Your task to perform on an android device: clear all cookies in the chrome app Image 0: 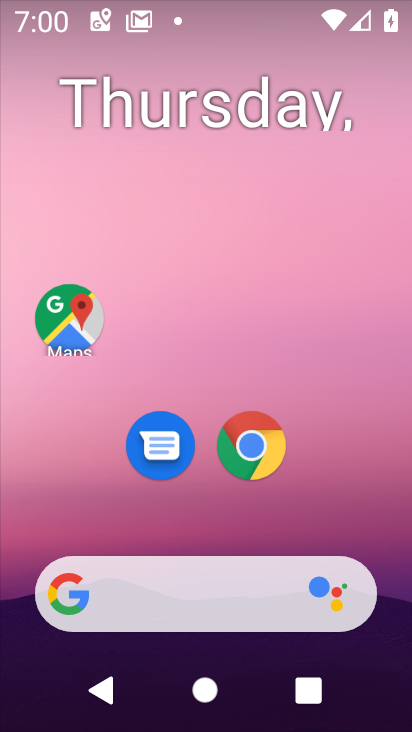
Step 0: drag from (385, 644) to (205, 103)
Your task to perform on an android device: clear all cookies in the chrome app Image 1: 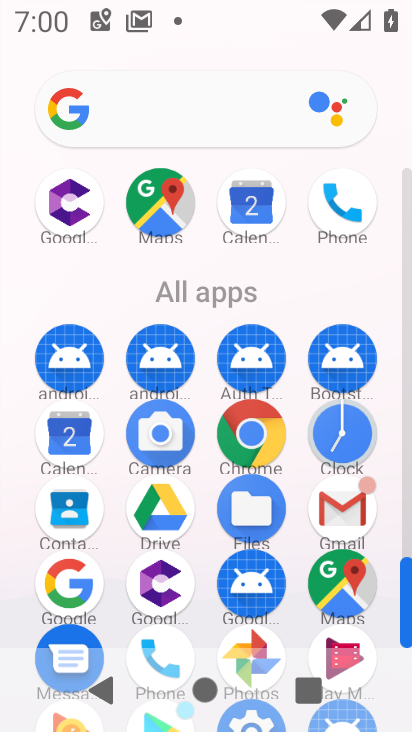
Step 1: click (238, 407)
Your task to perform on an android device: clear all cookies in the chrome app Image 2: 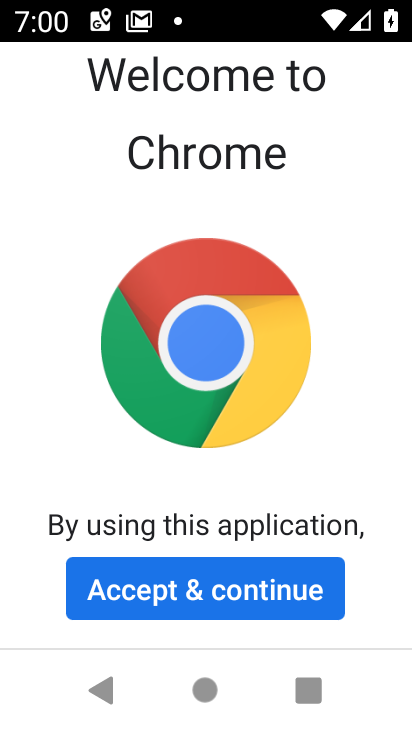
Step 2: click (151, 576)
Your task to perform on an android device: clear all cookies in the chrome app Image 3: 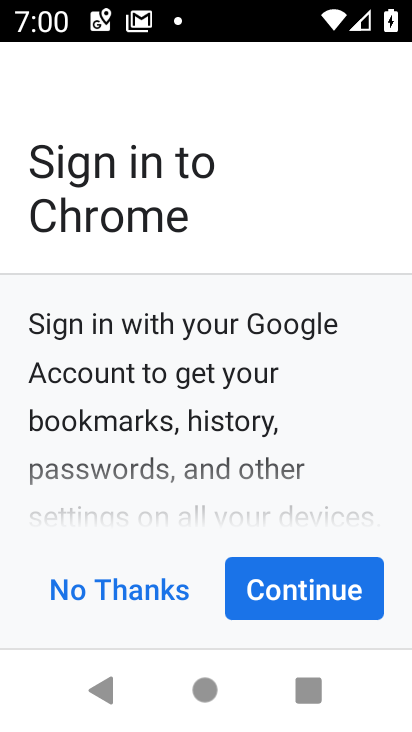
Step 3: click (275, 591)
Your task to perform on an android device: clear all cookies in the chrome app Image 4: 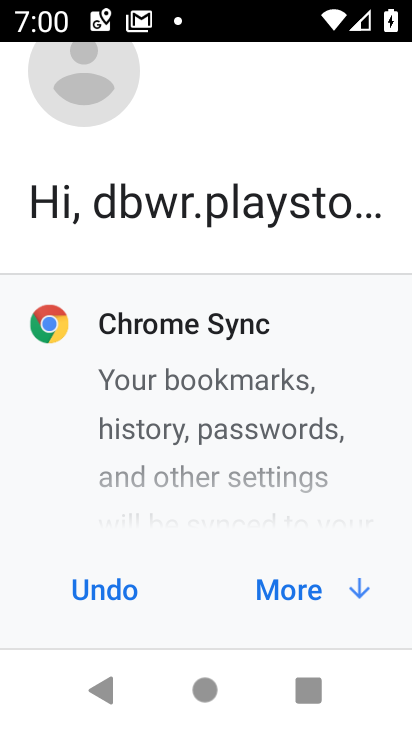
Step 4: click (275, 591)
Your task to perform on an android device: clear all cookies in the chrome app Image 5: 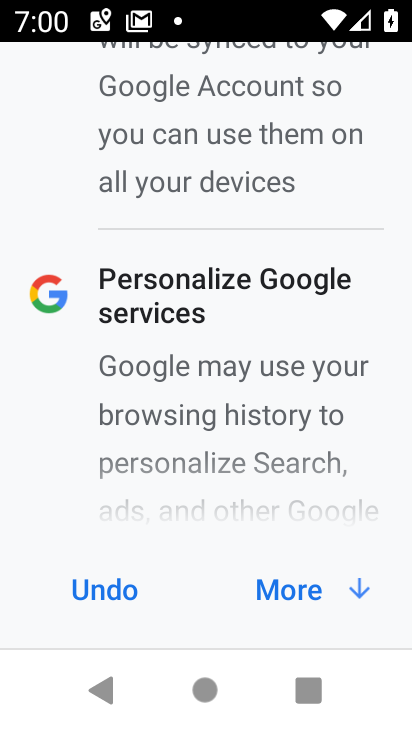
Step 5: click (275, 591)
Your task to perform on an android device: clear all cookies in the chrome app Image 6: 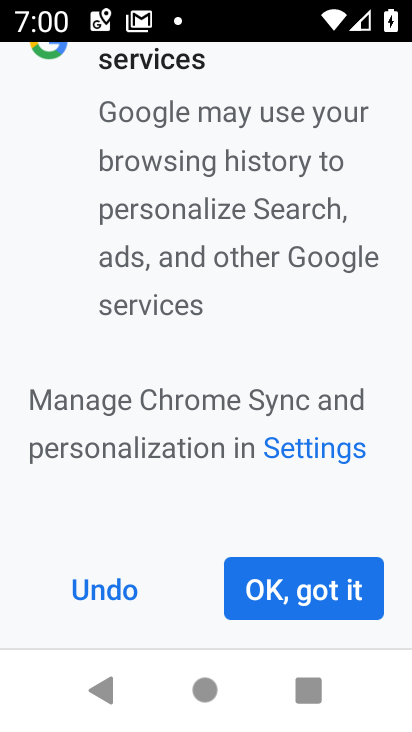
Step 6: click (275, 591)
Your task to perform on an android device: clear all cookies in the chrome app Image 7: 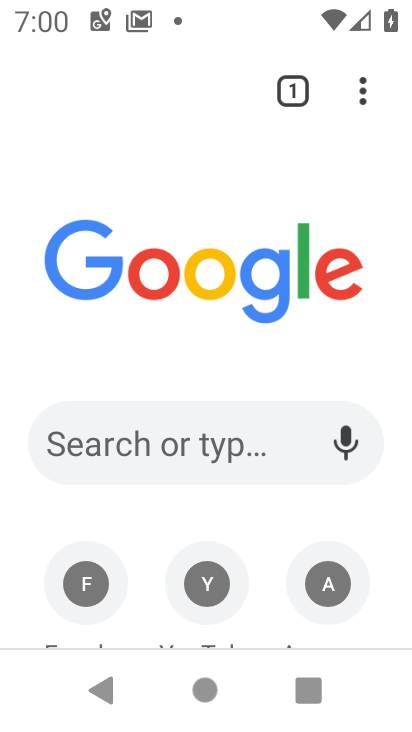
Step 7: click (166, 449)
Your task to perform on an android device: clear all cookies in the chrome app Image 8: 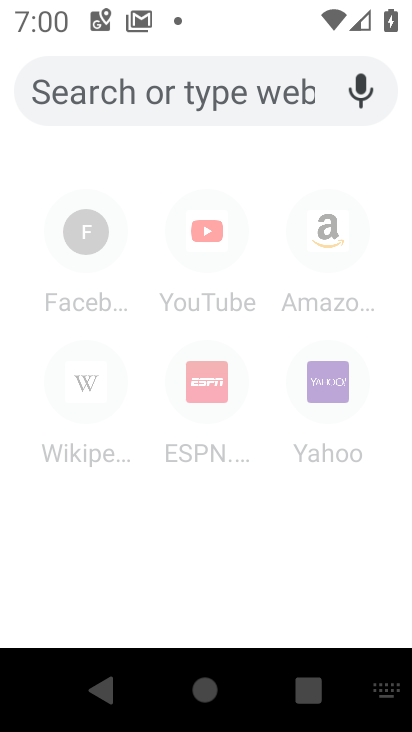
Step 8: press back button
Your task to perform on an android device: clear all cookies in the chrome app Image 9: 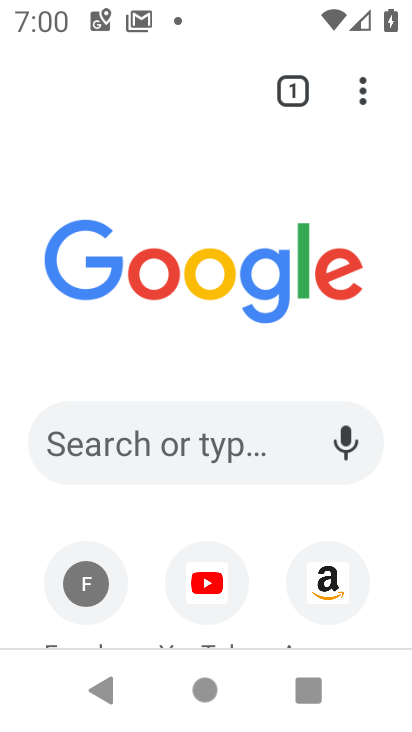
Step 9: click (365, 84)
Your task to perform on an android device: clear all cookies in the chrome app Image 10: 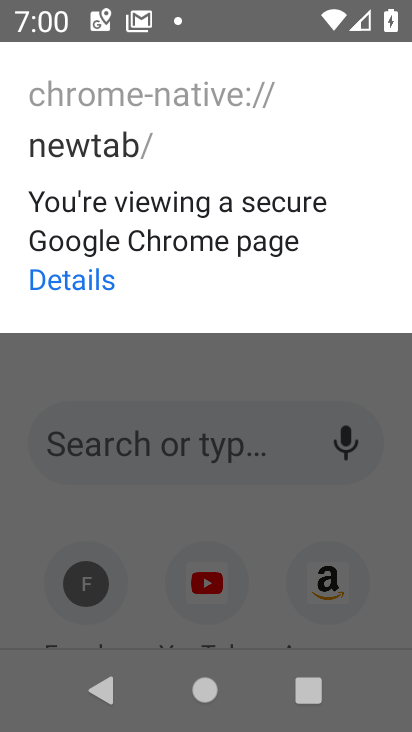
Step 10: press back button
Your task to perform on an android device: clear all cookies in the chrome app Image 11: 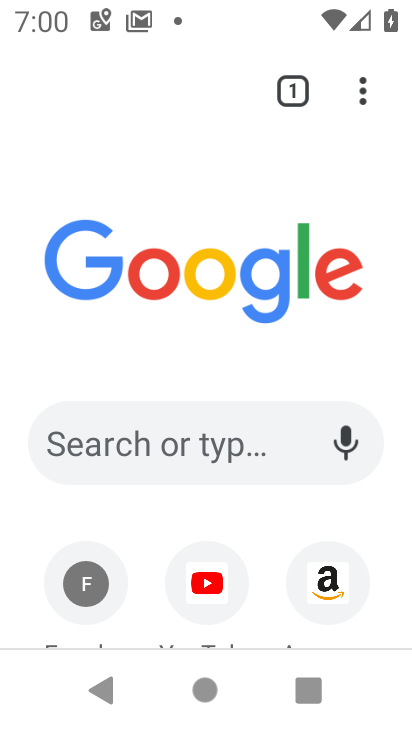
Step 11: click (367, 89)
Your task to perform on an android device: clear all cookies in the chrome app Image 12: 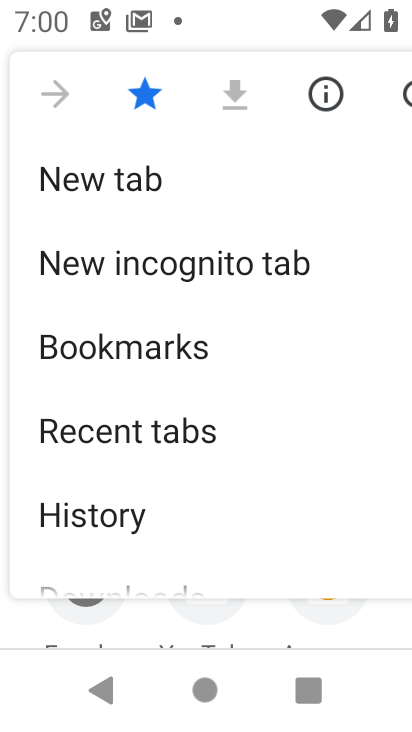
Step 12: click (184, 505)
Your task to perform on an android device: clear all cookies in the chrome app Image 13: 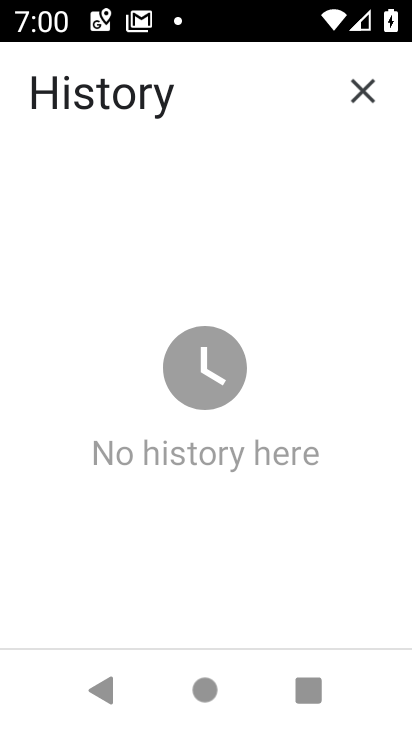
Step 13: task complete